Your task to perform on an android device: Open accessibility settings Image 0: 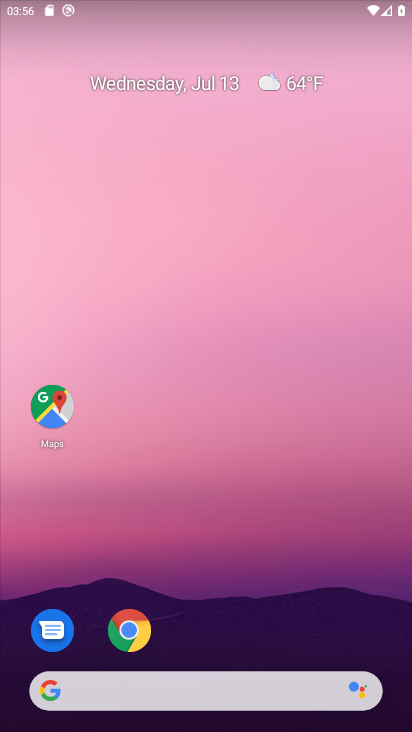
Step 0: drag from (186, 624) to (147, 268)
Your task to perform on an android device: Open accessibility settings Image 1: 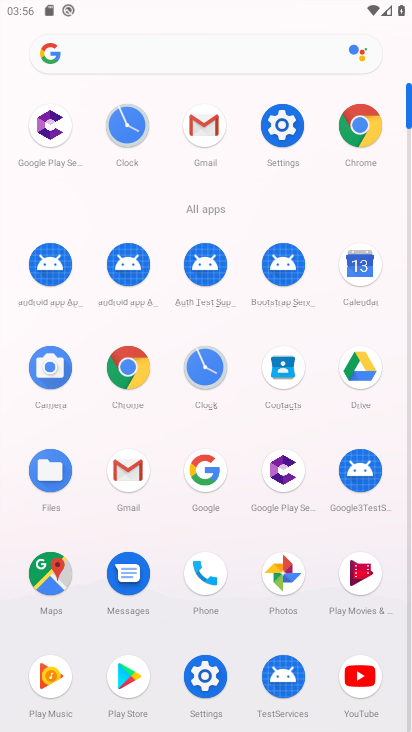
Step 1: click (283, 127)
Your task to perform on an android device: Open accessibility settings Image 2: 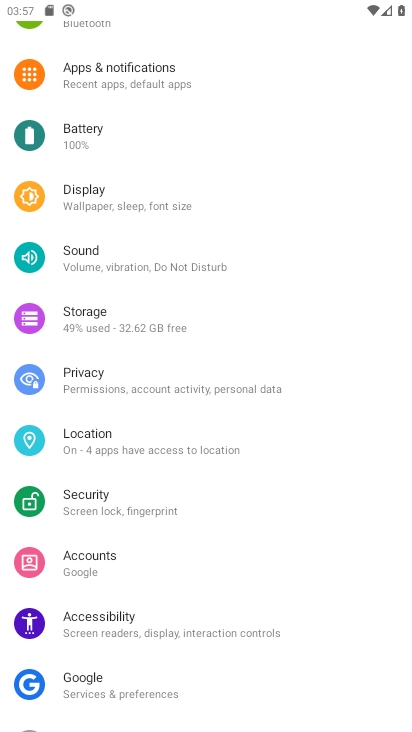
Step 2: click (126, 632)
Your task to perform on an android device: Open accessibility settings Image 3: 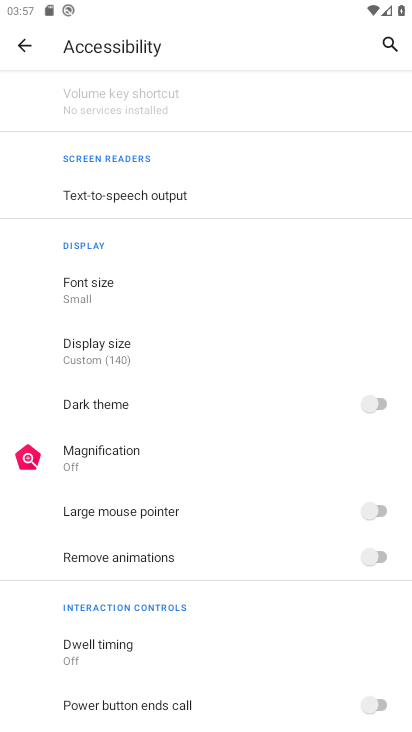
Step 3: task complete